Your task to perform on an android device: Go to network settings Image 0: 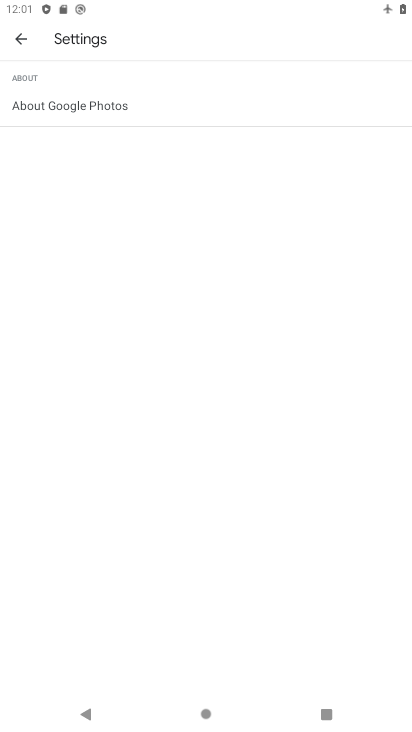
Step 0: press back button
Your task to perform on an android device: Go to network settings Image 1: 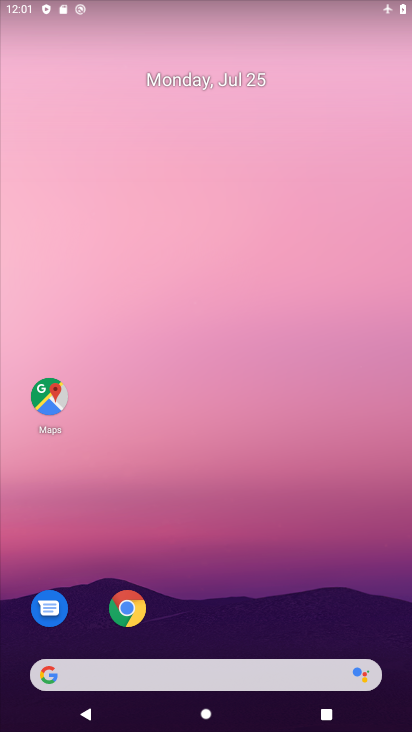
Step 1: drag from (333, 538) to (321, 119)
Your task to perform on an android device: Go to network settings Image 2: 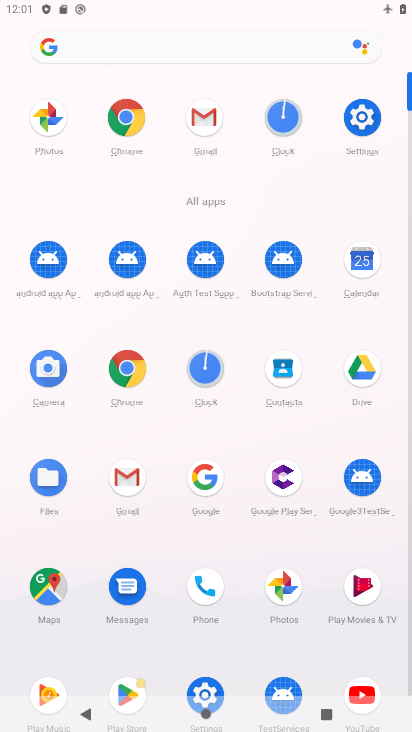
Step 2: click (210, 692)
Your task to perform on an android device: Go to network settings Image 3: 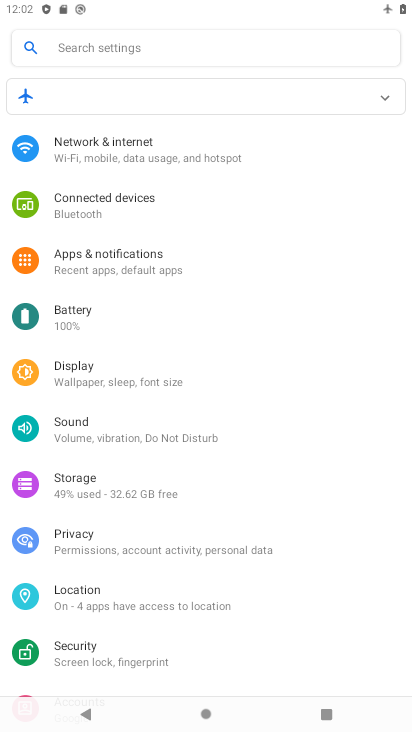
Step 3: click (201, 171)
Your task to perform on an android device: Go to network settings Image 4: 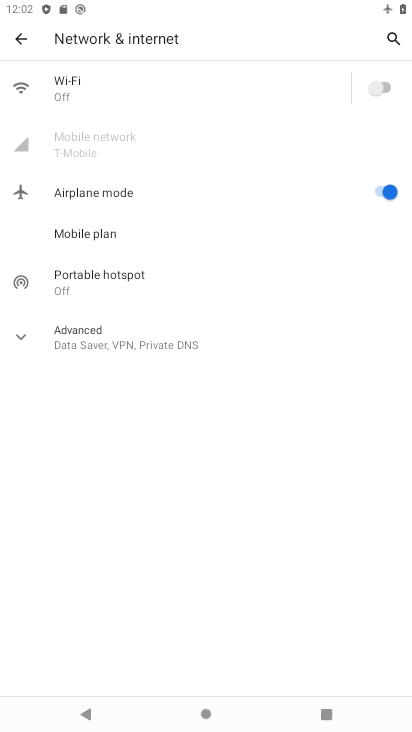
Step 4: task complete